Your task to perform on an android device: allow notifications from all sites in the chrome app Image 0: 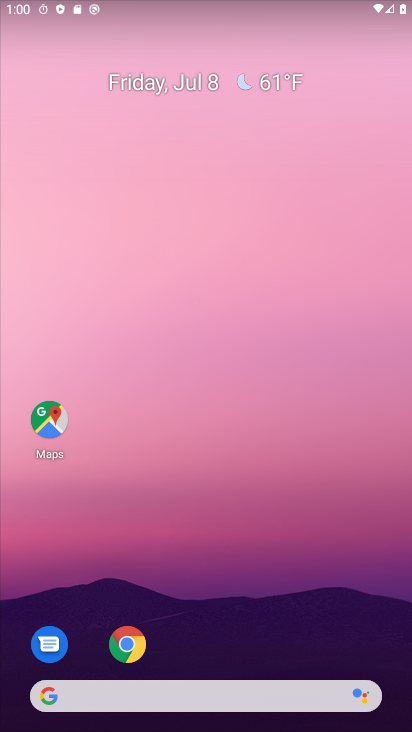
Step 0: click (141, 641)
Your task to perform on an android device: allow notifications from all sites in the chrome app Image 1: 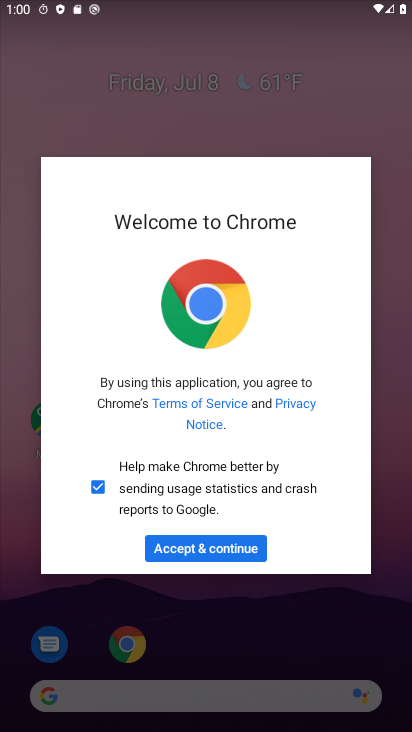
Step 1: click (202, 555)
Your task to perform on an android device: allow notifications from all sites in the chrome app Image 2: 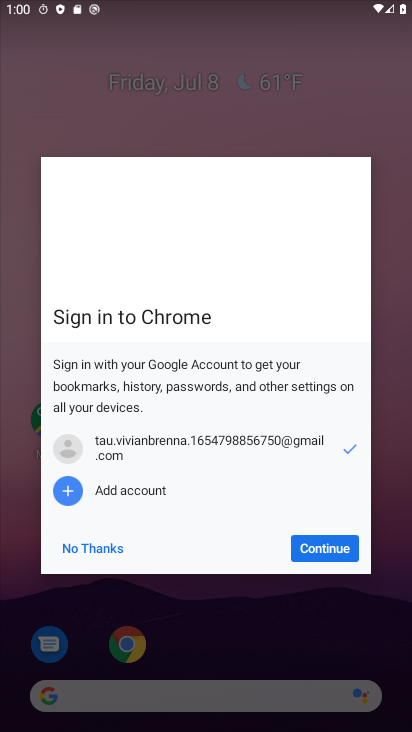
Step 2: click (334, 544)
Your task to perform on an android device: allow notifications from all sites in the chrome app Image 3: 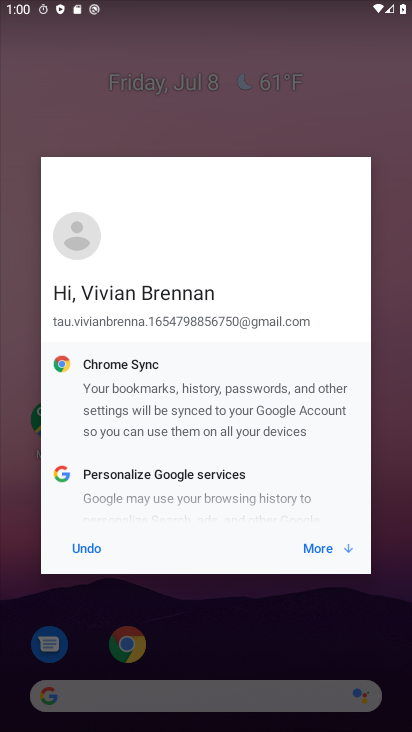
Step 3: click (324, 547)
Your task to perform on an android device: allow notifications from all sites in the chrome app Image 4: 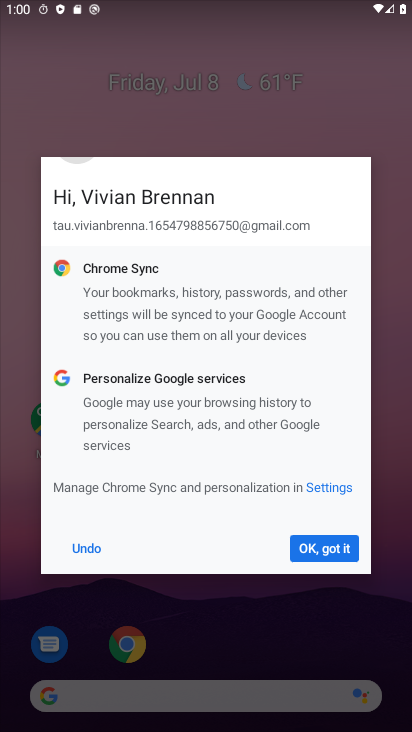
Step 4: click (322, 559)
Your task to perform on an android device: allow notifications from all sites in the chrome app Image 5: 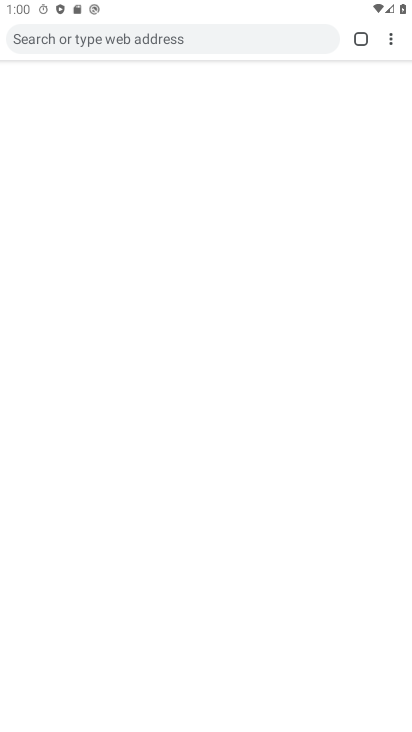
Step 5: click (316, 548)
Your task to perform on an android device: allow notifications from all sites in the chrome app Image 6: 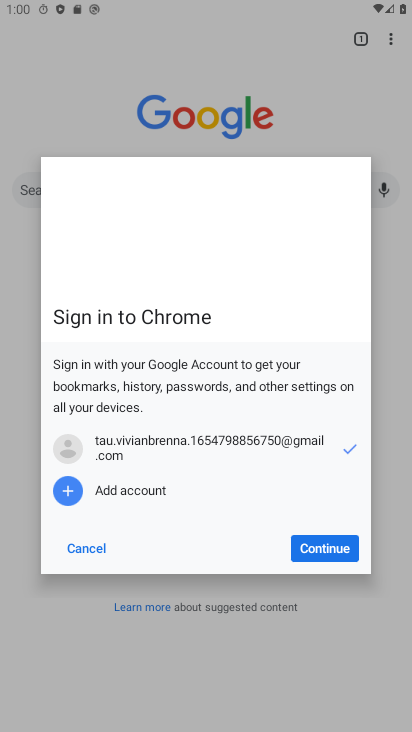
Step 6: press home button
Your task to perform on an android device: allow notifications from all sites in the chrome app Image 7: 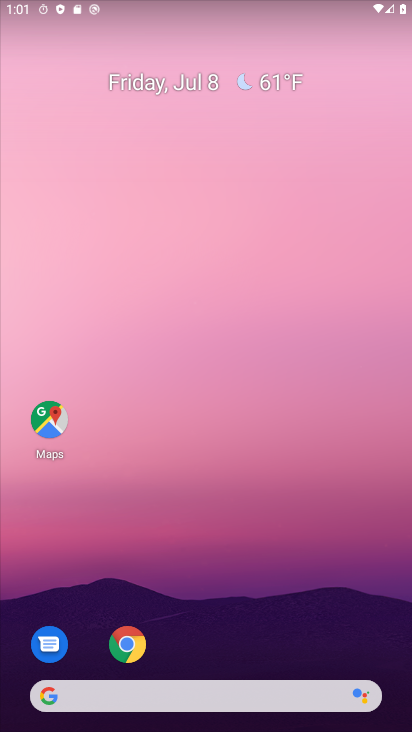
Step 7: click (122, 636)
Your task to perform on an android device: allow notifications from all sites in the chrome app Image 8: 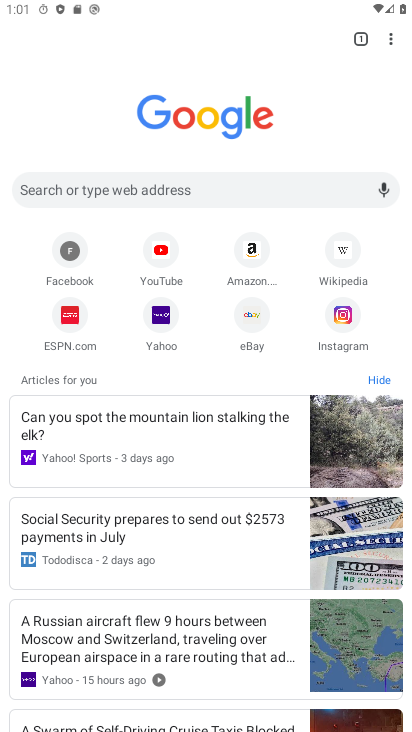
Step 8: click (394, 40)
Your task to perform on an android device: allow notifications from all sites in the chrome app Image 9: 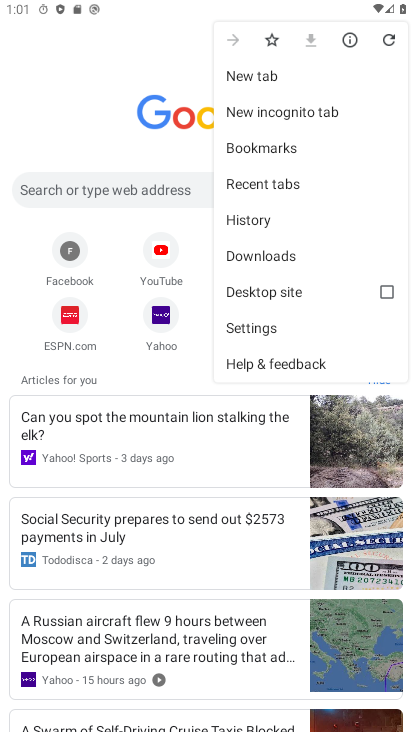
Step 9: click (253, 337)
Your task to perform on an android device: allow notifications from all sites in the chrome app Image 10: 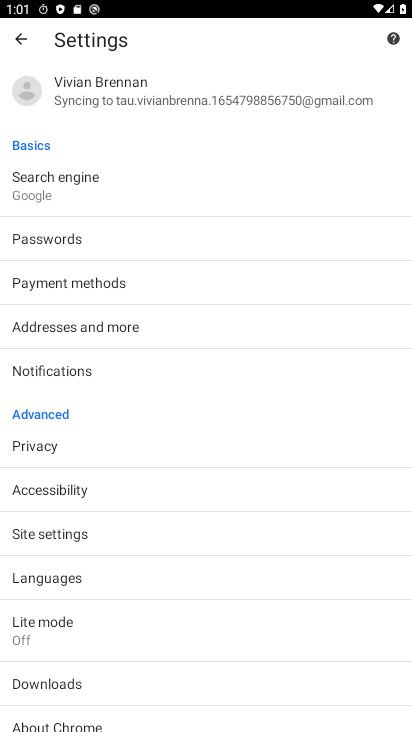
Step 10: click (69, 369)
Your task to perform on an android device: allow notifications from all sites in the chrome app Image 11: 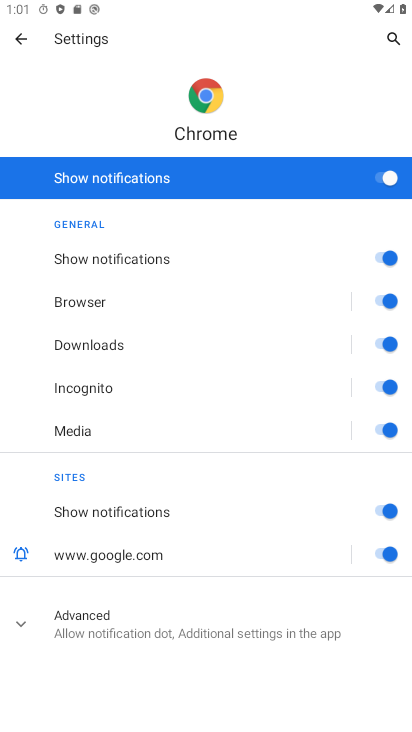
Step 11: task complete